Your task to perform on an android device: Go to Reddit.com Image 0: 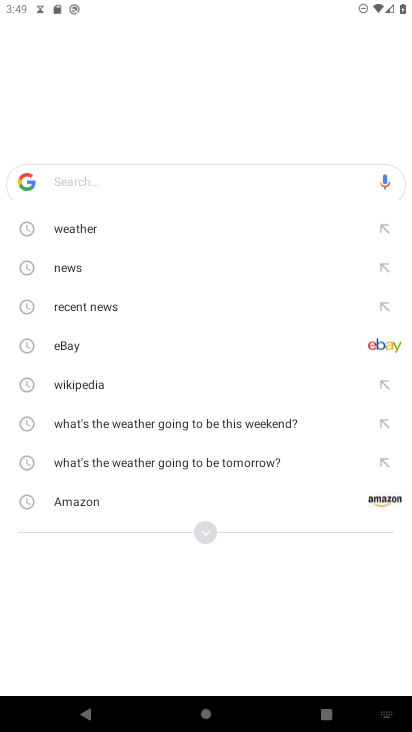
Step 0: press home button
Your task to perform on an android device: Go to Reddit.com Image 1: 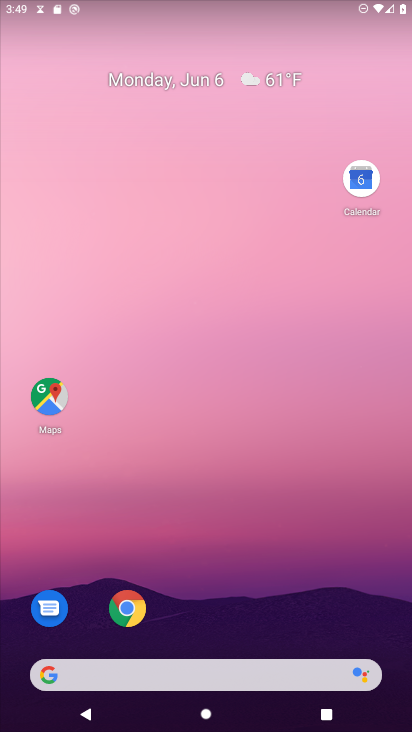
Step 1: click (123, 615)
Your task to perform on an android device: Go to Reddit.com Image 2: 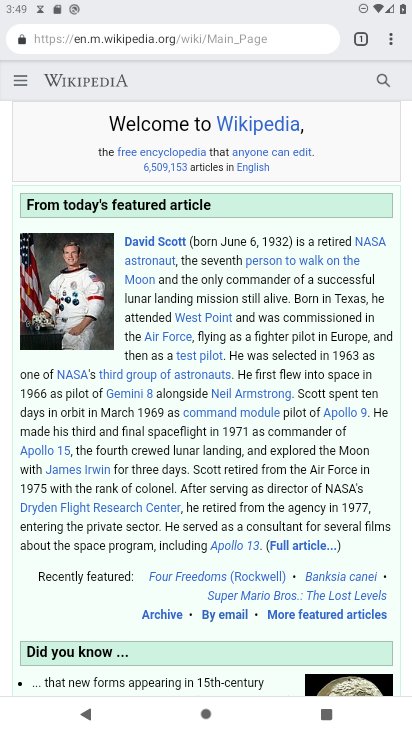
Step 2: click (401, 40)
Your task to perform on an android device: Go to Reddit.com Image 3: 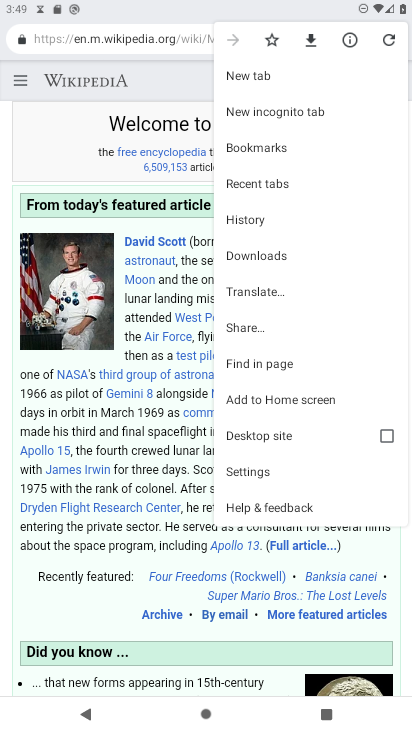
Step 3: click (90, 34)
Your task to perform on an android device: Go to Reddit.com Image 4: 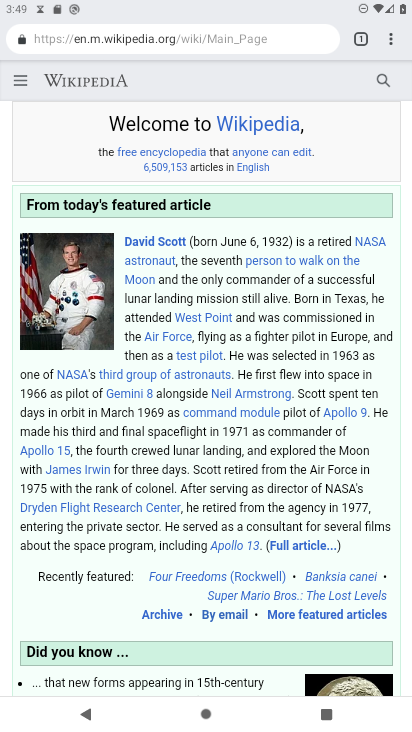
Step 4: click (90, 34)
Your task to perform on an android device: Go to Reddit.com Image 5: 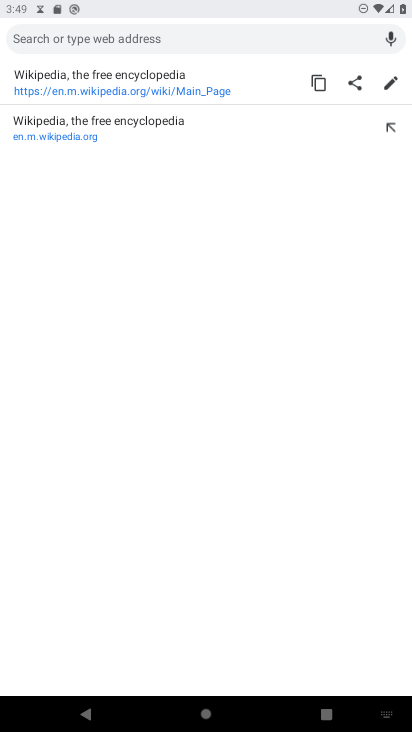
Step 5: type "Reddit>com"
Your task to perform on an android device: Go to Reddit.com Image 6: 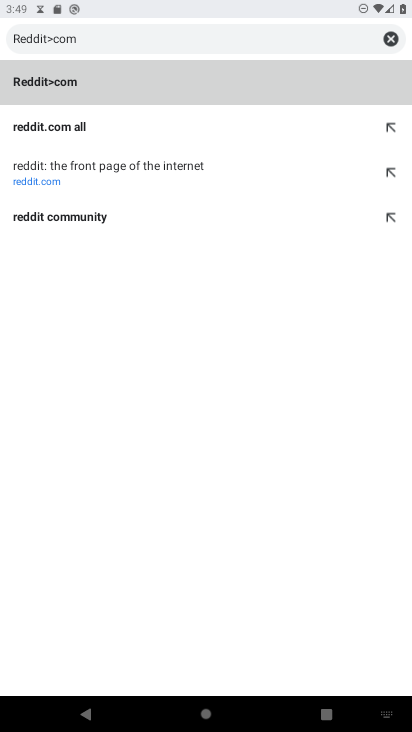
Step 6: click (73, 142)
Your task to perform on an android device: Go to Reddit.com Image 7: 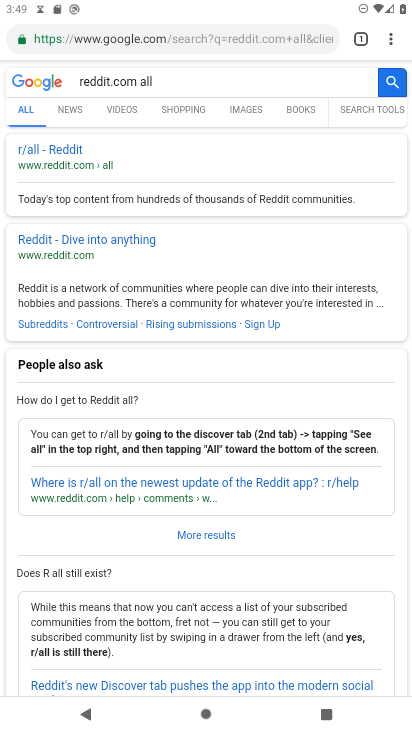
Step 7: click (59, 243)
Your task to perform on an android device: Go to Reddit.com Image 8: 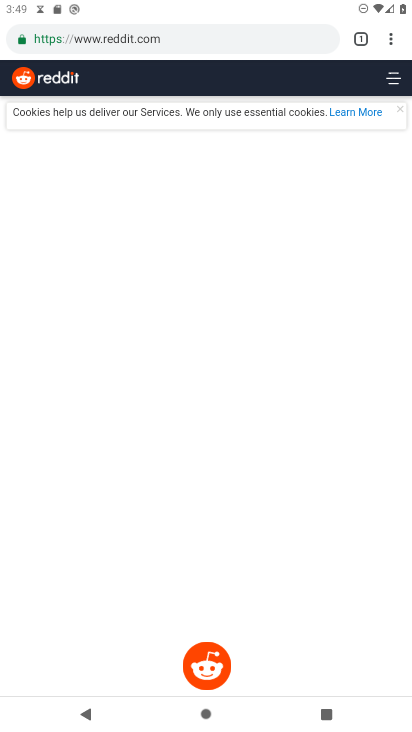
Step 8: task complete